Your task to perform on an android device: Open Chrome and go to settings Image 0: 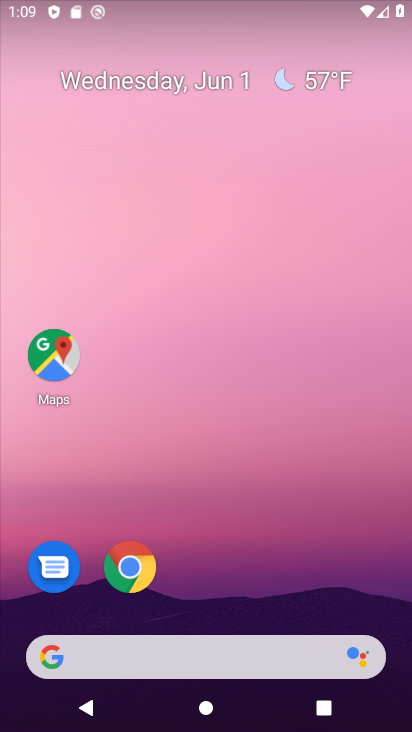
Step 0: click (152, 566)
Your task to perform on an android device: Open Chrome and go to settings Image 1: 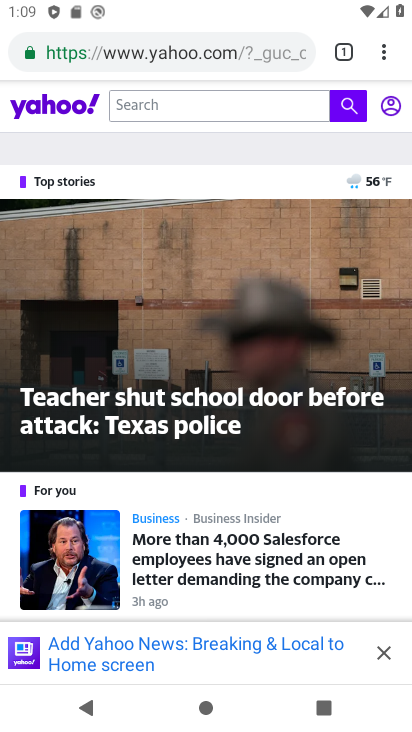
Step 1: click (390, 44)
Your task to perform on an android device: Open Chrome and go to settings Image 2: 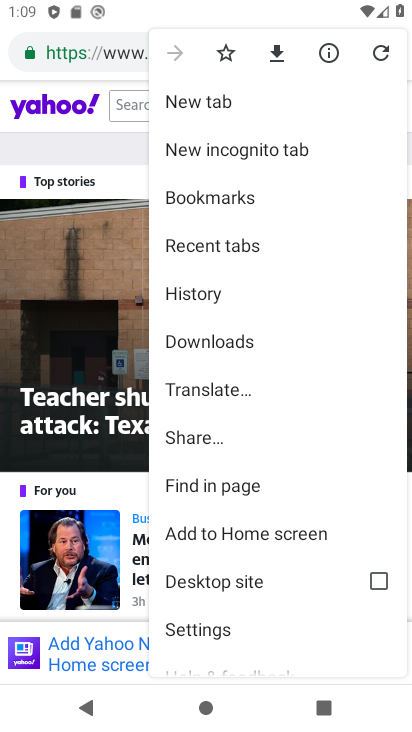
Step 2: drag from (281, 564) to (249, 352)
Your task to perform on an android device: Open Chrome and go to settings Image 3: 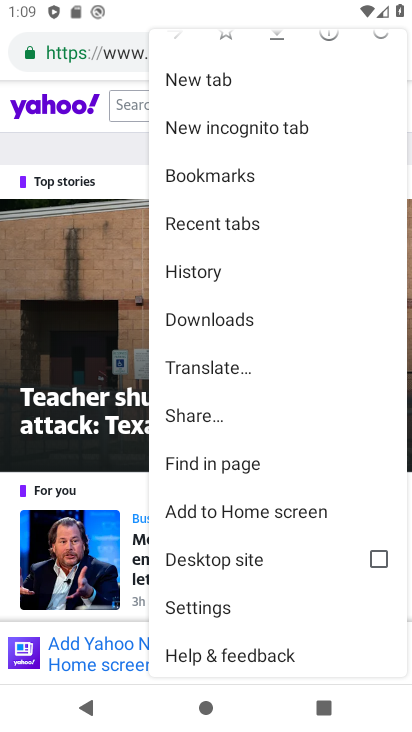
Step 3: click (247, 608)
Your task to perform on an android device: Open Chrome and go to settings Image 4: 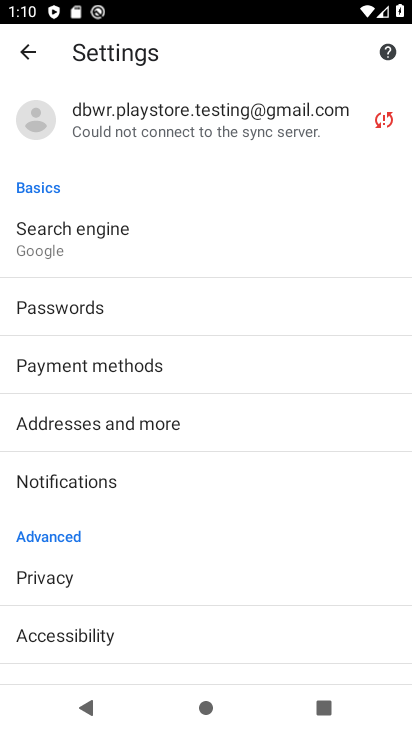
Step 4: task complete